Your task to perform on an android device: check storage Image 0: 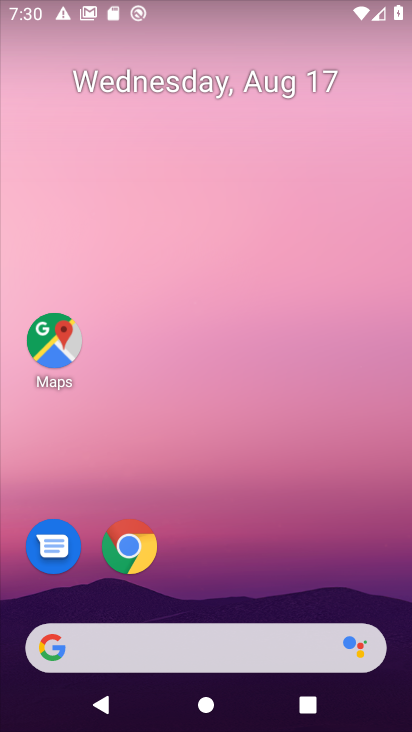
Step 0: click (206, 34)
Your task to perform on an android device: check storage Image 1: 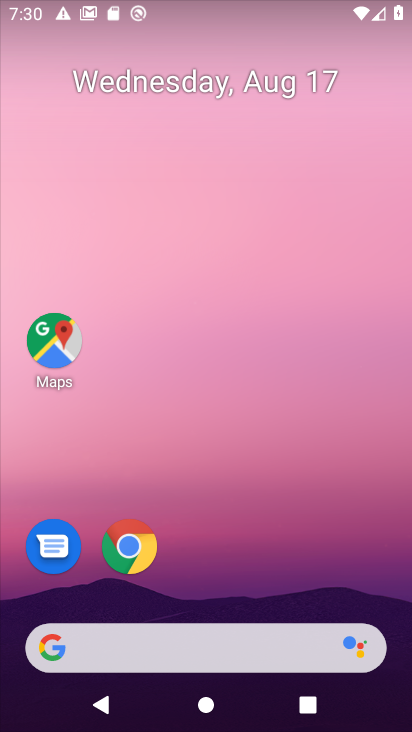
Step 1: drag from (225, 623) to (252, 148)
Your task to perform on an android device: check storage Image 2: 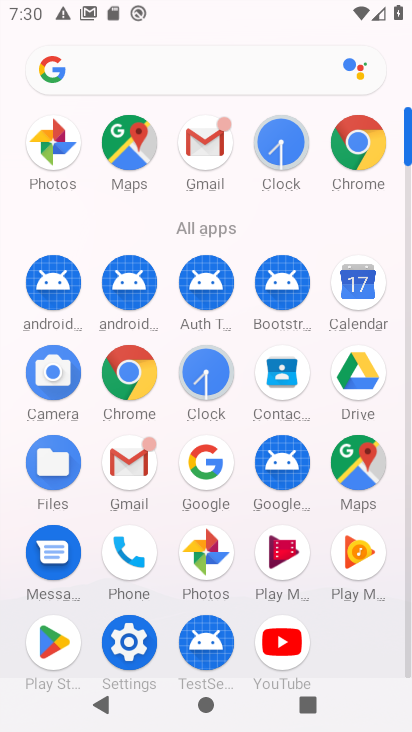
Step 2: click (138, 660)
Your task to perform on an android device: check storage Image 3: 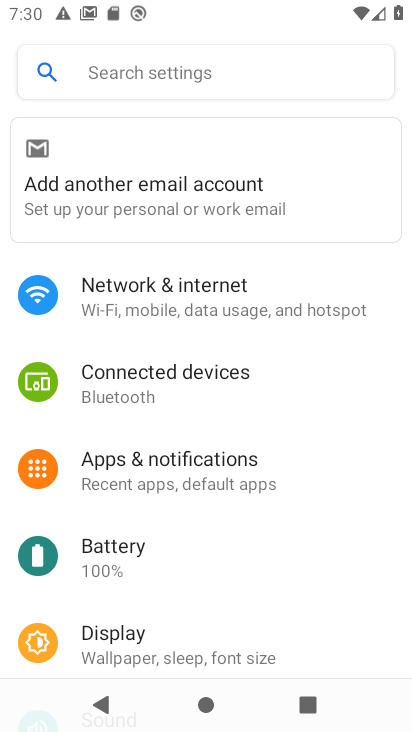
Step 3: drag from (146, 619) to (201, 151)
Your task to perform on an android device: check storage Image 4: 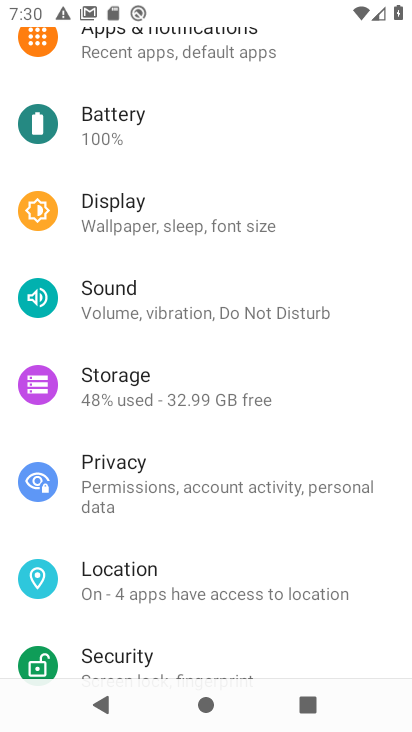
Step 4: click (205, 387)
Your task to perform on an android device: check storage Image 5: 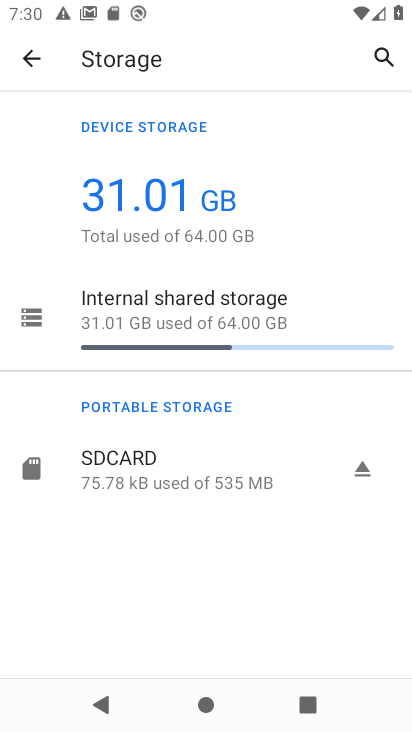
Step 5: task complete